Your task to perform on an android device: When is my next appointment? Image 0: 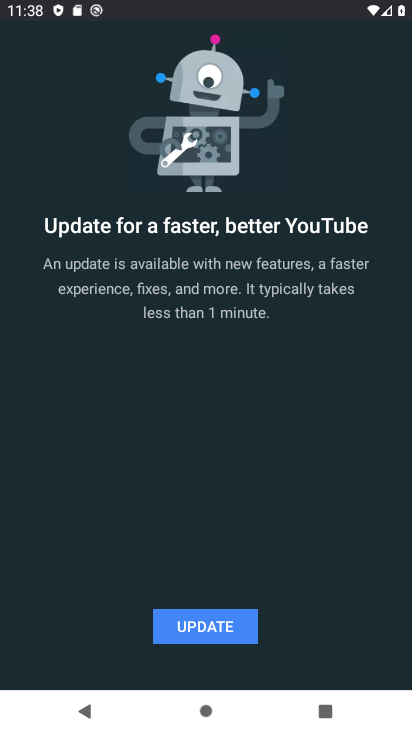
Step 0: press home button
Your task to perform on an android device: When is my next appointment? Image 1: 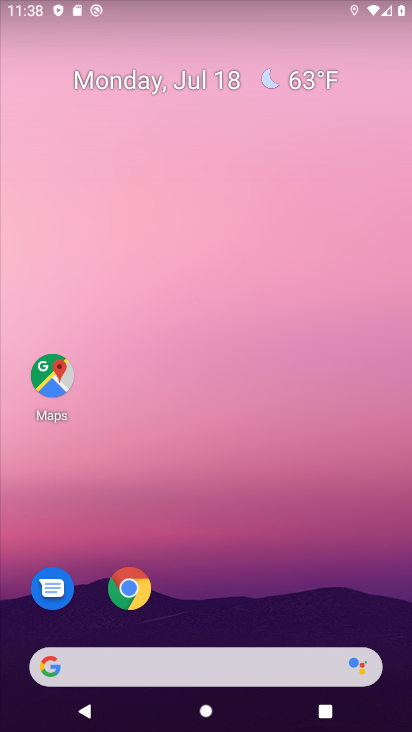
Step 1: drag from (130, 645) to (272, 47)
Your task to perform on an android device: When is my next appointment? Image 2: 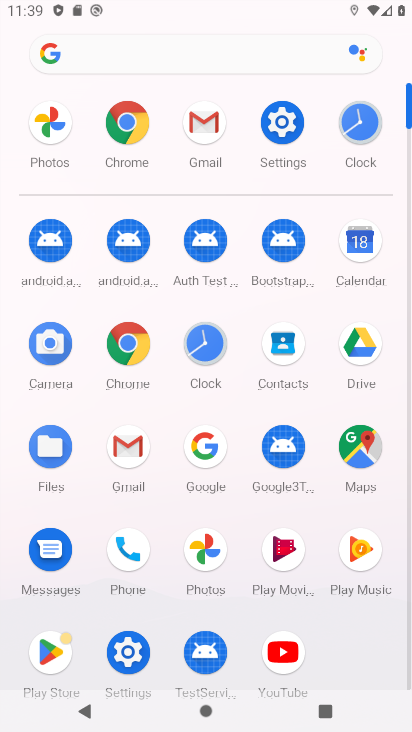
Step 2: click (362, 264)
Your task to perform on an android device: When is my next appointment? Image 3: 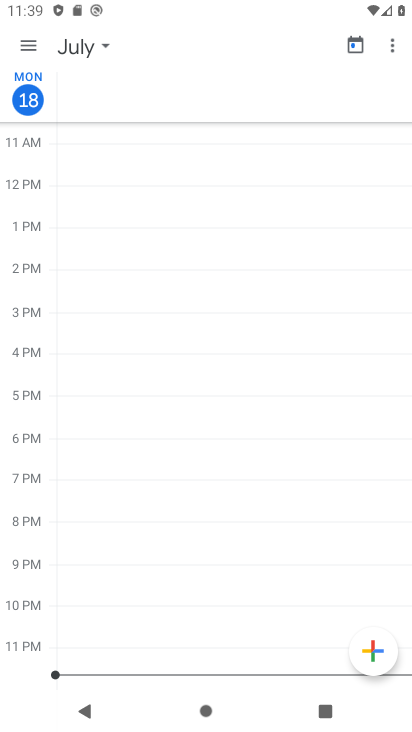
Step 3: click (84, 44)
Your task to perform on an android device: When is my next appointment? Image 4: 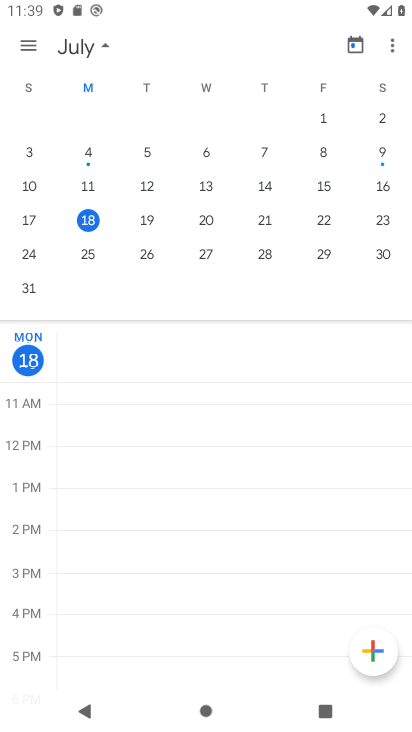
Step 4: task complete